Your task to perform on an android device: Find coffee shops on Maps Image 0: 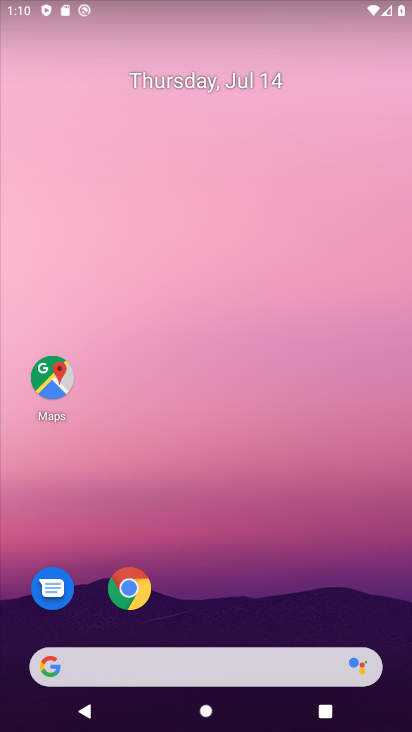
Step 0: click (57, 375)
Your task to perform on an android device: Find coffee shops on Maps Image 1: 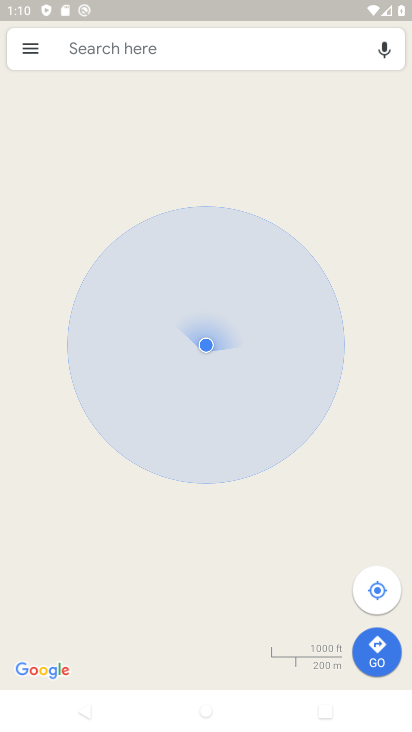
Step 1: click (115, 55)
Your task to perform on an android device: Find coffee shops on Maps Image 2: 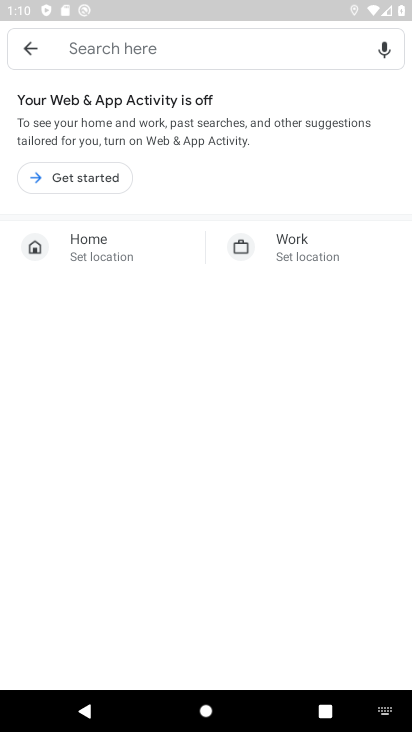
Step 2: click (157, 38)
Your task to perform on an android device: Find coffee shops on Maps Image 3: 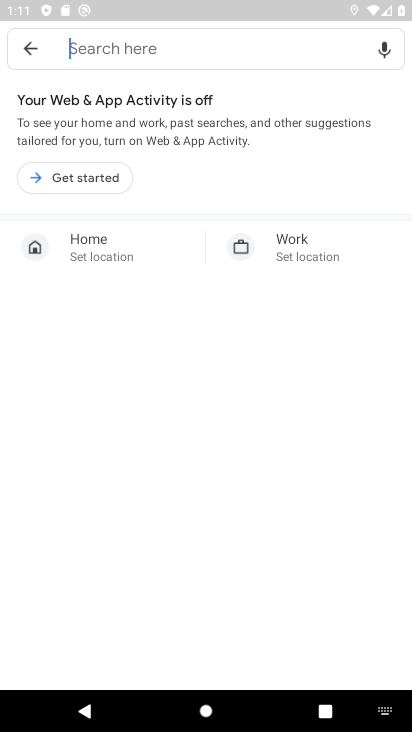
Step 3: type "coffee"
Your task to perform on an android device: Find coffee shops on Maps Image 4: 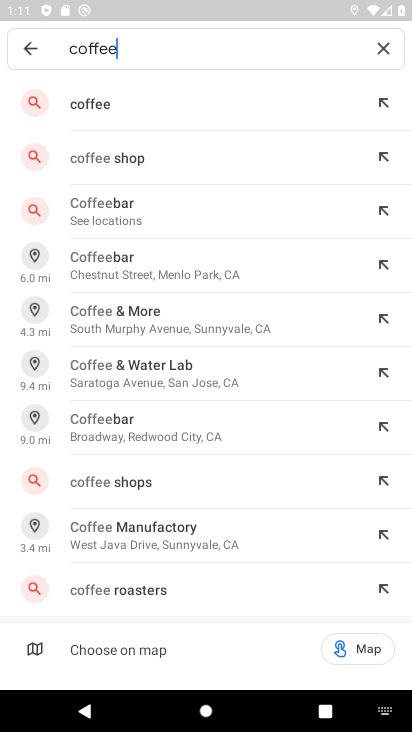
Step 4: click (129, 145)
Your task to perform on an android device: Find coffee shops on Maps Image 5: 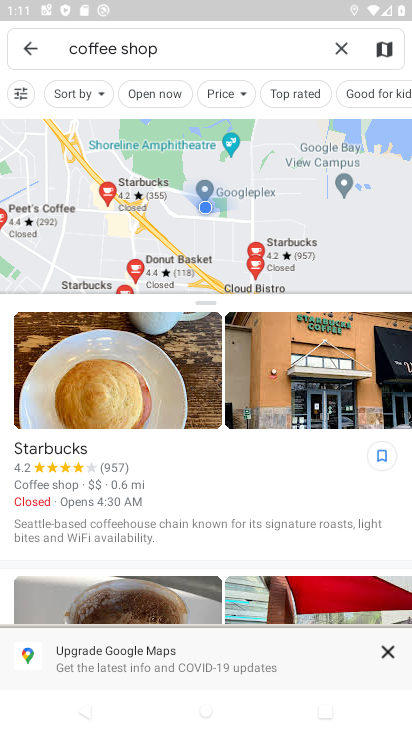
Step 5: task complete